Your task to perform on an android device: turn notification dots on Image 0: 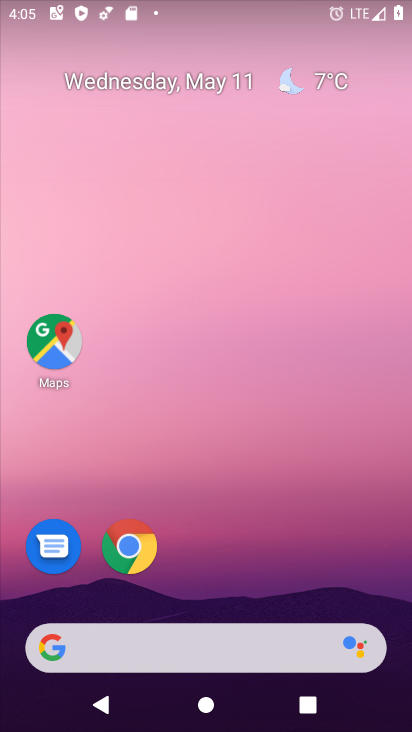
Step 0: drag from (332, 621) to (352, 22)
Your task to perform on an android device: turn notification dots on Image 1: 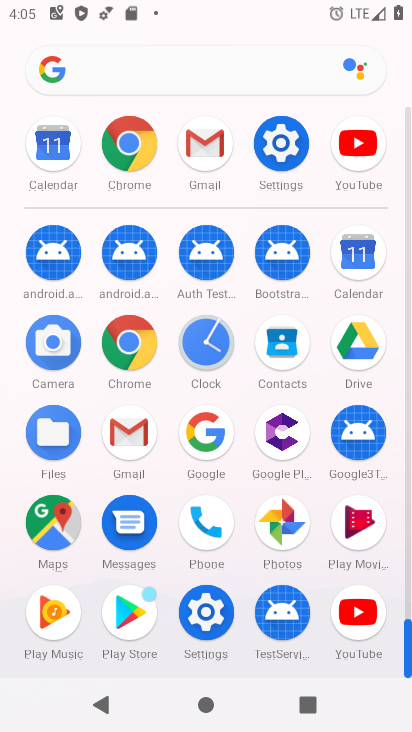
Step 1: click (285, 156)
Your task to perform on an android device: turn notification dots on Image 2: 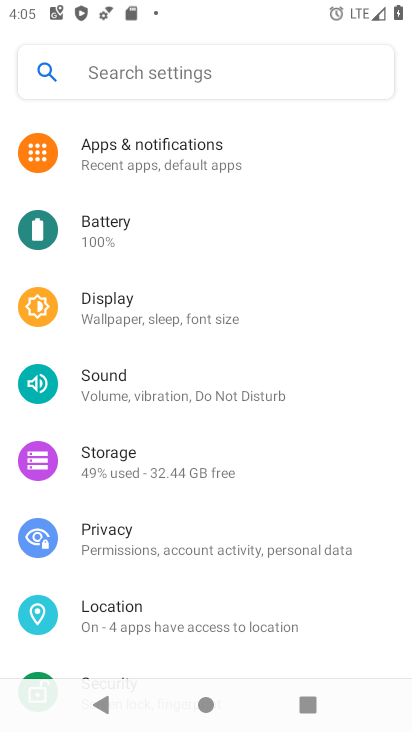
Step 2: click (184, 151)
Your task to perform on an android device: turn notification dots on Image 3: 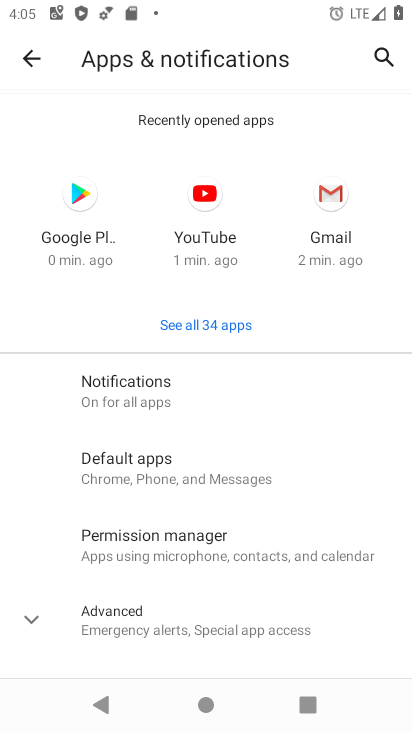
Step 3: drag from (230, 620) to (241, 336)
Your task to perform on an android device: turn notification dots on Image 4: 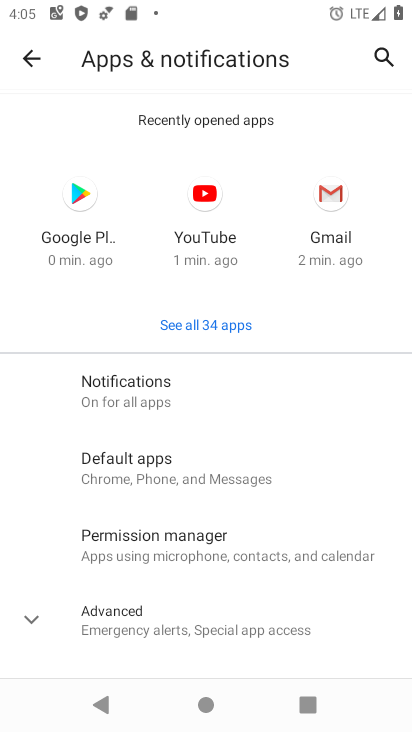
Step 4: click (195, 385)
Your task to perform on an android device: turn notification dots on Image 5: 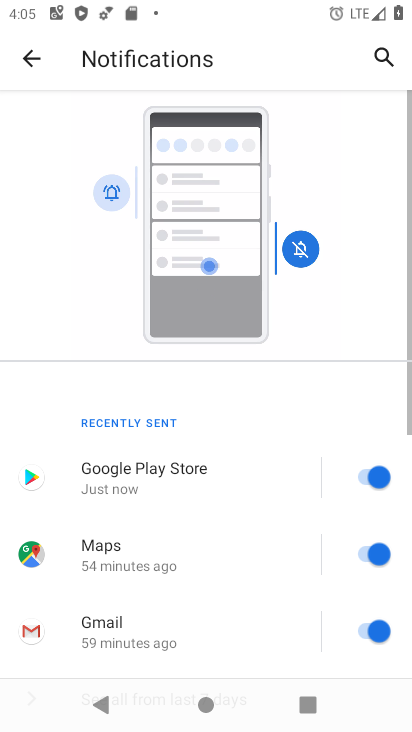
Step 5: drag from (237, 604) to (256, 103)
Your task to perform on an android device: turn notification dots on Image 6: 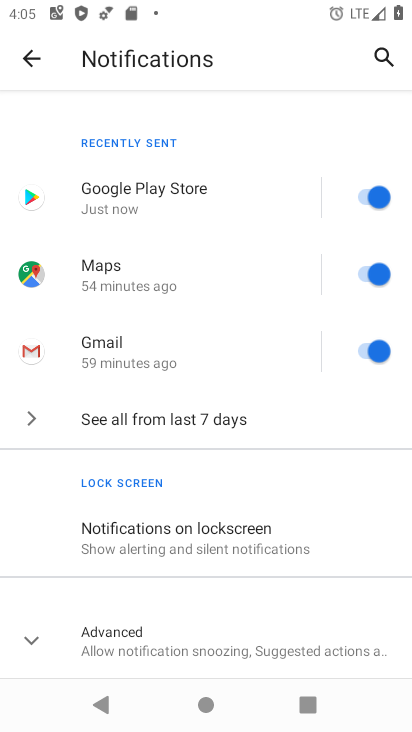
Step 6: click (232, 545)
Your task to perform on an android device: turn notification dots on Image 7: 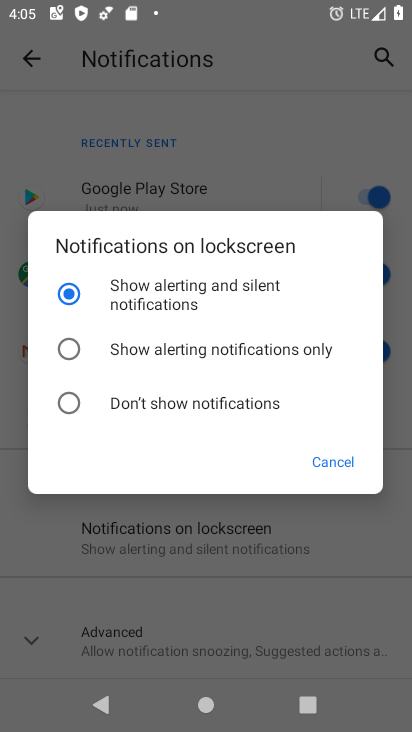
Step 7: click (339, 446)
Your task to perform on an android device: turn notification dots on Image 8: 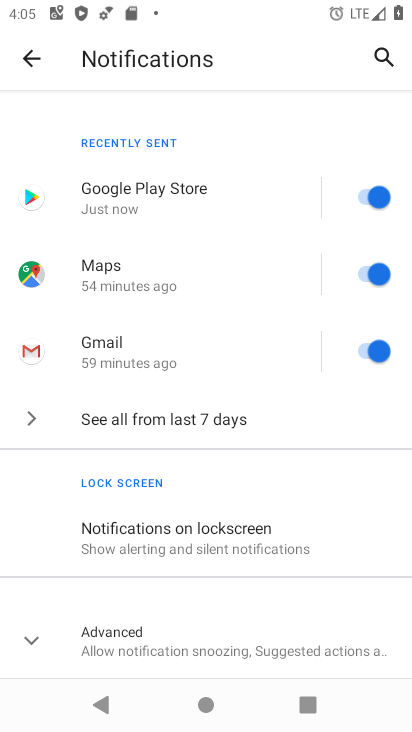
Step 8: click (273, 651)
Your task to perform on an android device: turn notification dots on Image 9: 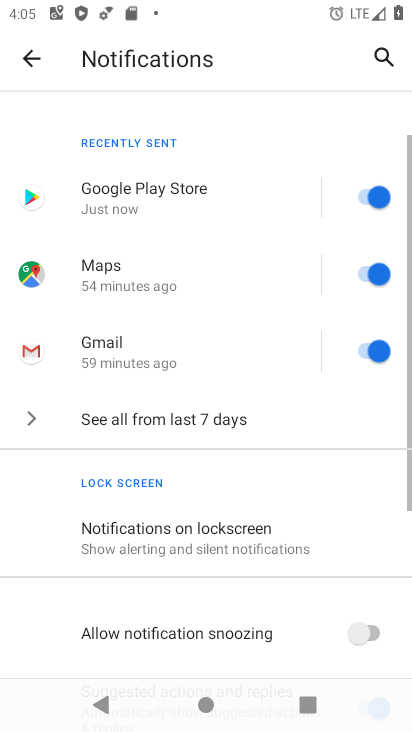
Step 9: task complete